Your task to perform on an android device: change keyboard looks Image 0: 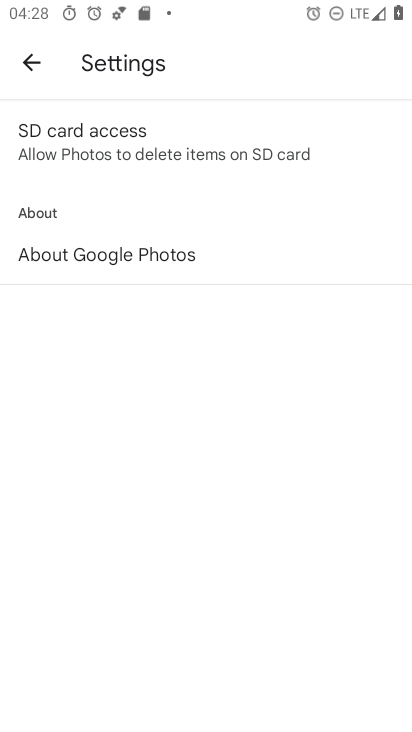
Step 0: press home button
Your task to perform on an android device: change keyboard looks Image 1: 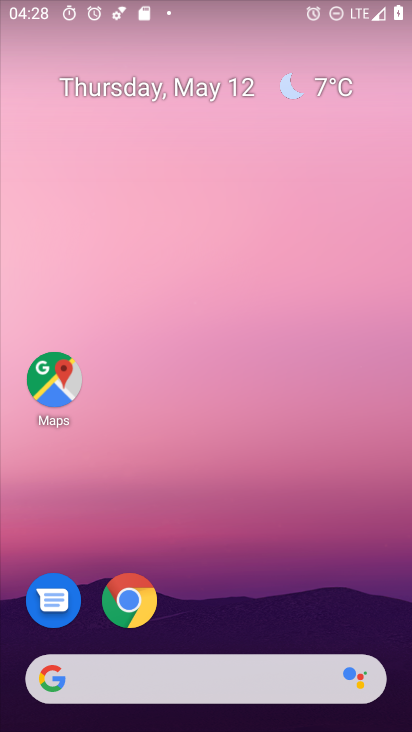
Step 1: drag from (211, 724) to (225, 203)
Your task to perform on an android device: change keyboard looks Image 2: 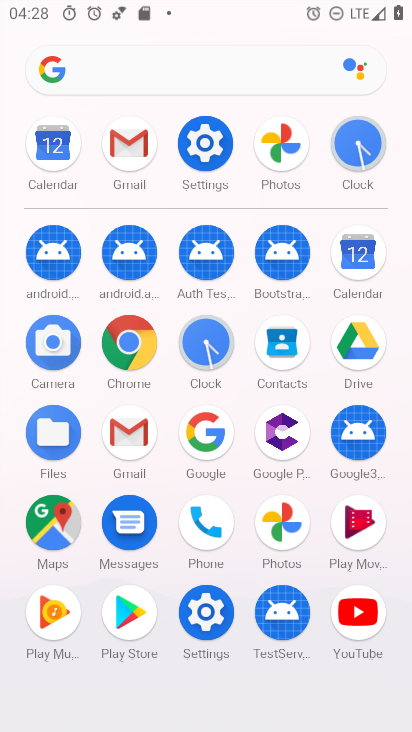
Step 2: click (211, 617)
Your task to perform on an android device: change keyboard looks Image 3: 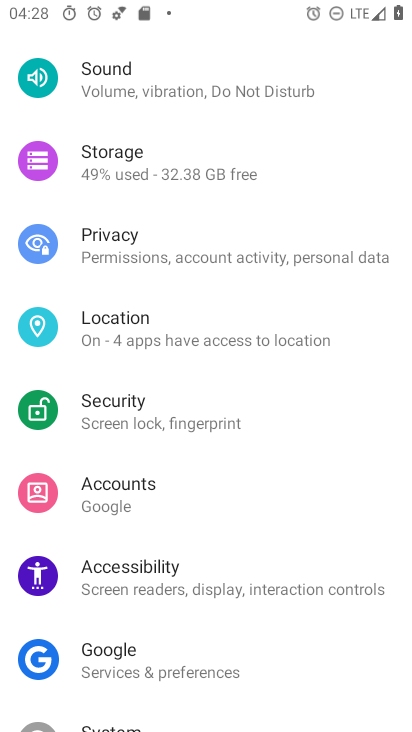
Step 3: drag from (214, 164) to (200, 560)
Your task to perform on an android device: change keyboard looks Image 4: 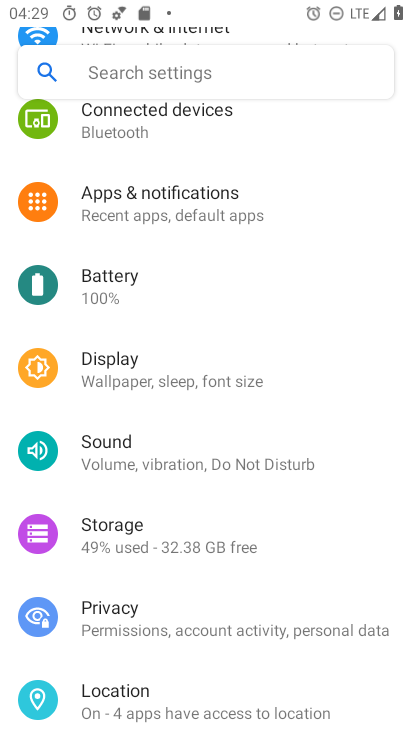
Step 4: drag from (196, 674) to (210, 304)
Your task to perform on an android device: change keyboard looks Image 5: 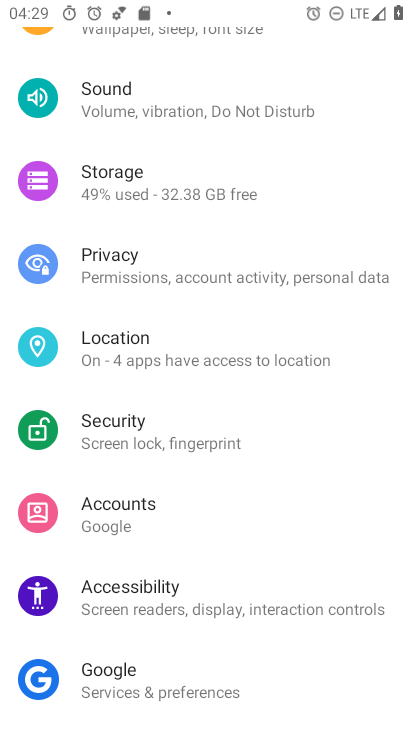
Step 5: drag from (238, 682) to (254, 299)
Your task to perform on an android device: change keyboard looks Image 6: 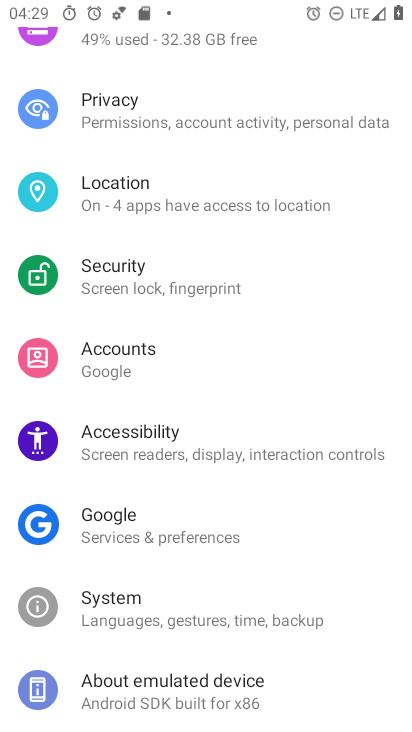
Step 6: click (177, 613)
Your task to perform on an android device: change keyboard looks Image 7: 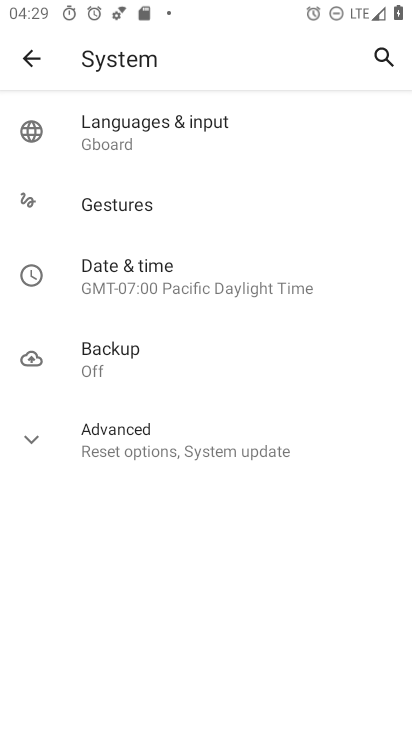
Step 7: click (123, 128)
Your task to perform on an android device: change keyboard looks Image 8: 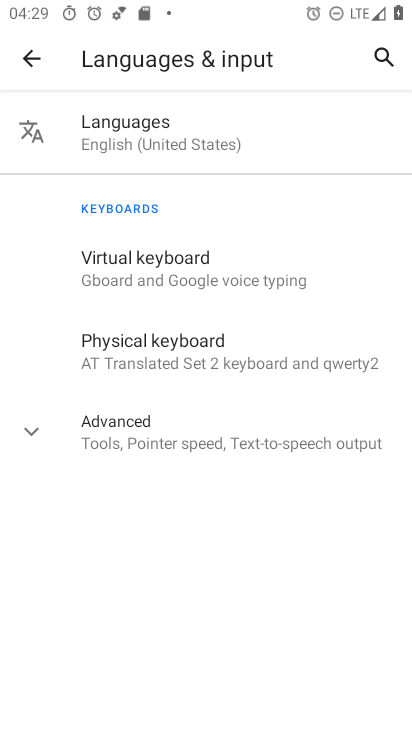
Step 8: click (176, 265)
Your task to perform on an android device: change keyboard looks Image 9: 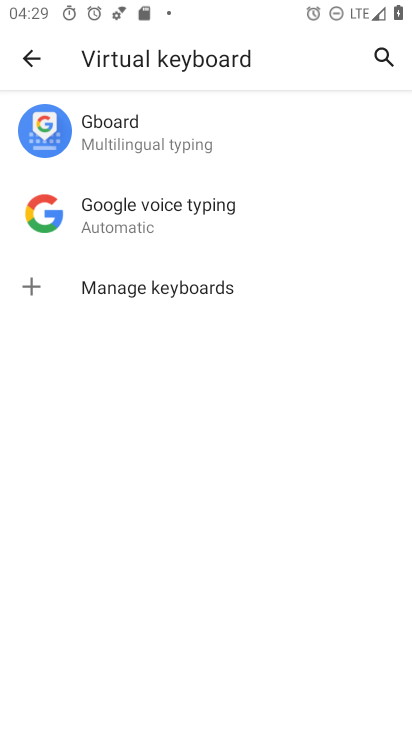
Step 9: click (104, 139)
Your task to perform on an android device: change keyboard looks Image 10: 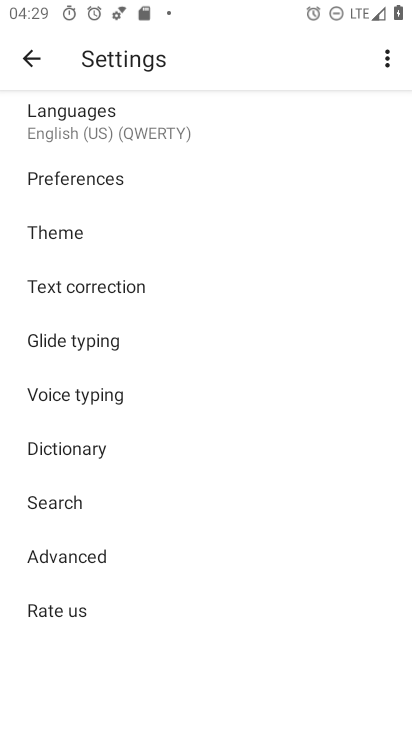
Step 10: click (70, 231)
Your task to perform on an android device: change keyboard looks Image 11: 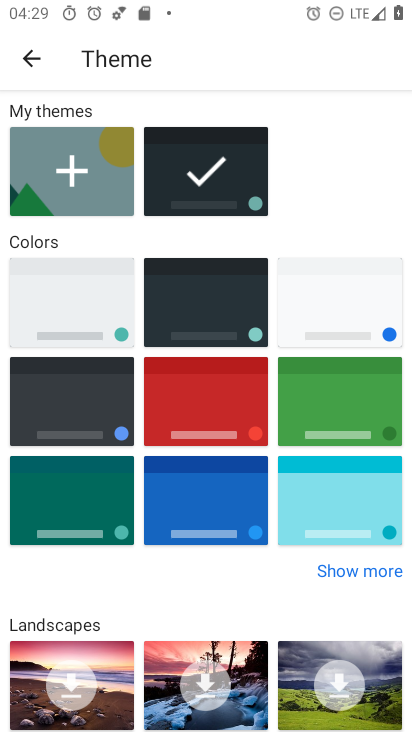
Step 11: click (219, 289)
Your task to perform on an android device: change keyboard looks Image 12: 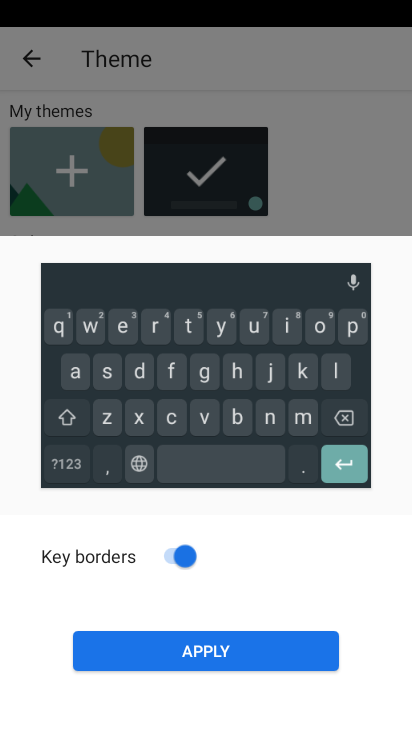
Step 12: click (202, 654)
Your task to perform on an android device: change keyboard looks Image 13: 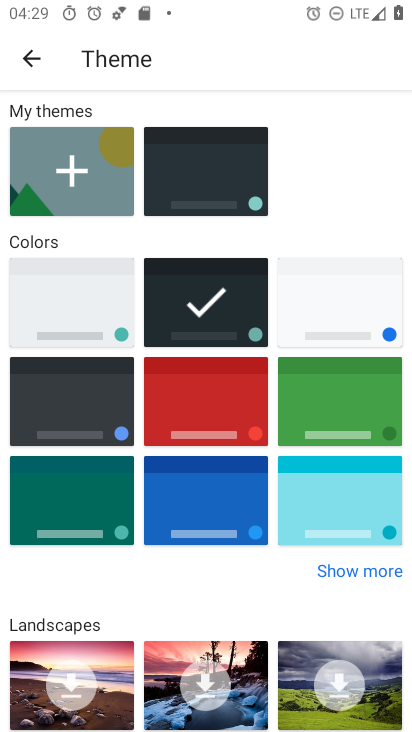
Step 13: task complete